Your task to perform on an android device: Open the web browser Image 0: 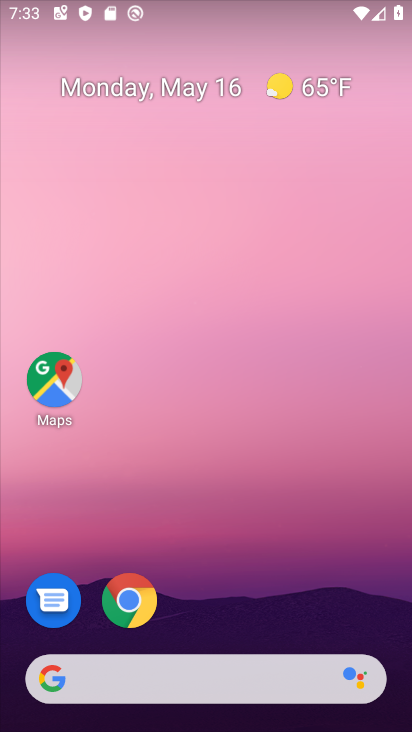
Step 0: drag from (348, 0) to (244, 45)
Your task to perform on an android device: Open the web browser Image 1: 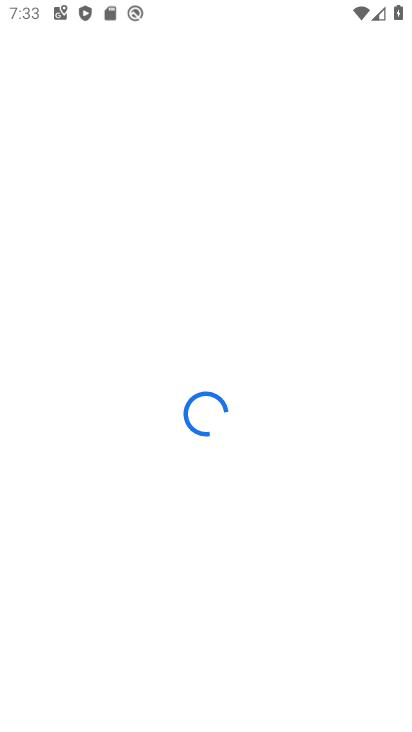
Step 1: drag from (191, 555) to (371, 142)
Your task to perform on an android device: Open the web browser Image 2: 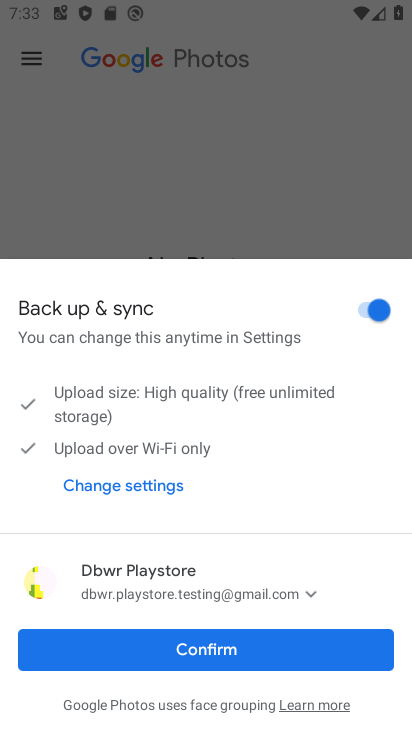
Step 2: press home button
Your task to perform on an android device: Open the web browser Image 3: 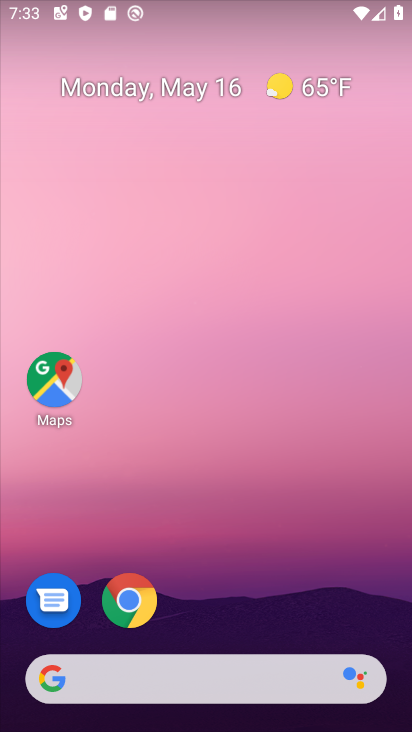
Step 3: drag from (184, 628) to (397, 70)
Your task to perform on an android device: Open the web browser Image 4: 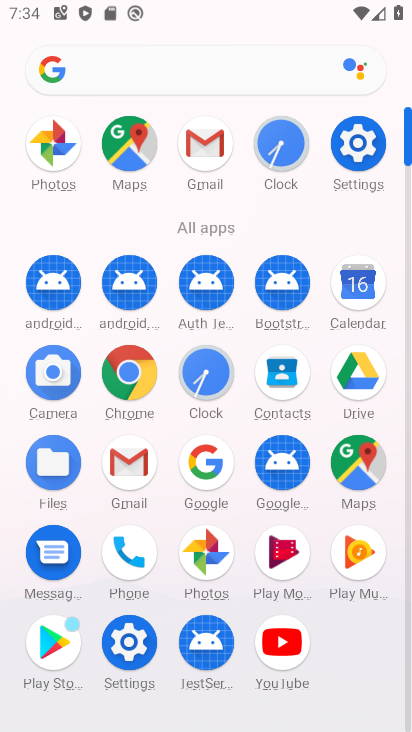
Step 4: click (123, 371)
Your task to perform on an android device: Open the web browser Image 5: 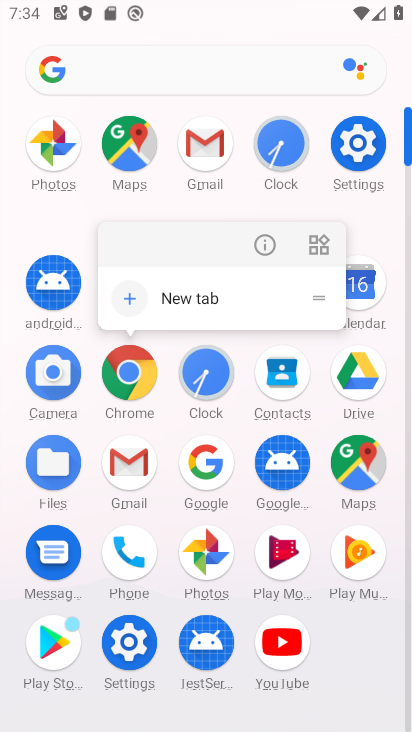
Step 5: click (276, 249)
Your task to perform on an android device: Open the web browser Image 6: 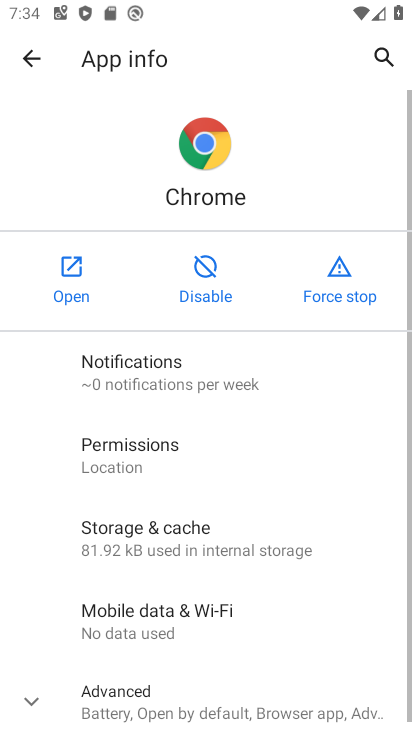
Step 6: click (53, 269)
Your task to perform on an android device: Open the web browser Image 7: 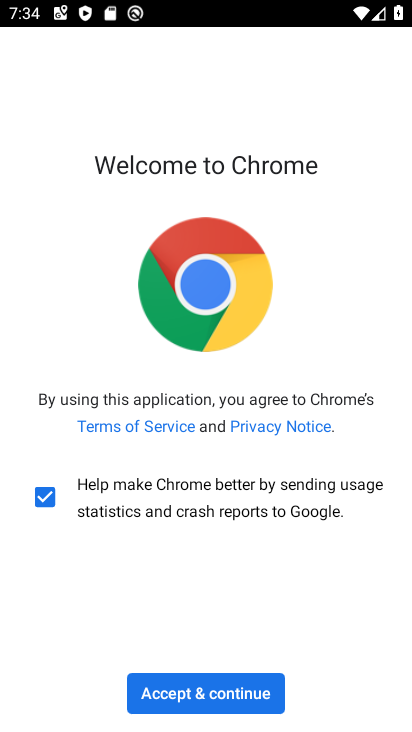
Step 7: click (190, 701)
Your task to perform on an android device: Open the web browser Image 8: 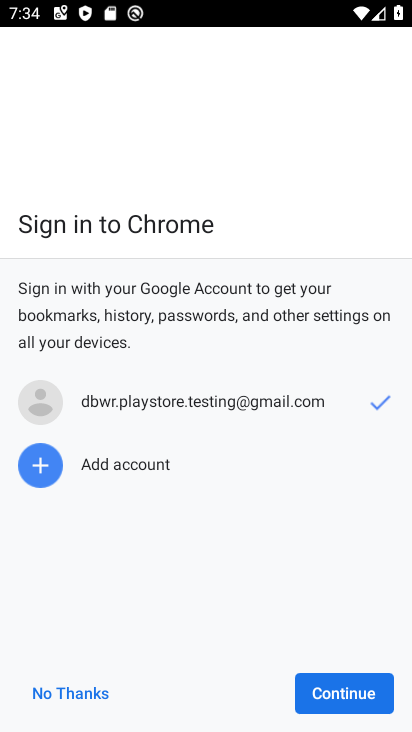
Step 8: click (340, 692)
Your task to perform on an android device: Open the web browser Image 9: 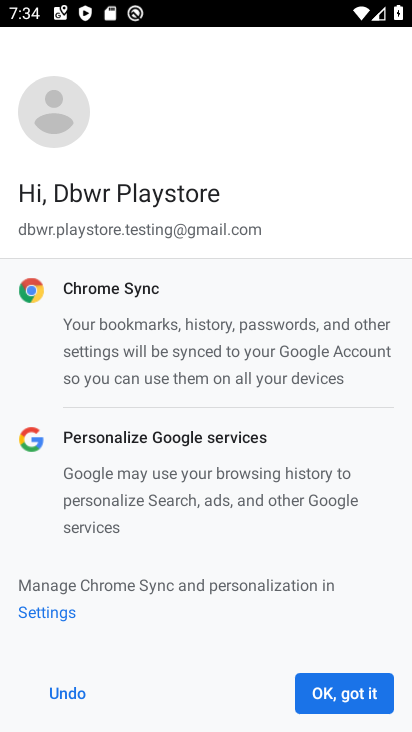
Step 9: click (364, 682)
Your task to perform on an android device: Open the web browser Image 10: 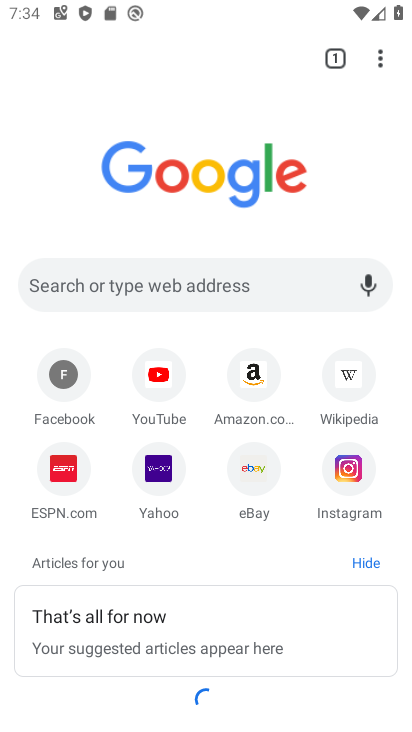
Step 10: task complete